Your task to perform on an android device: set an alarm Image 0: 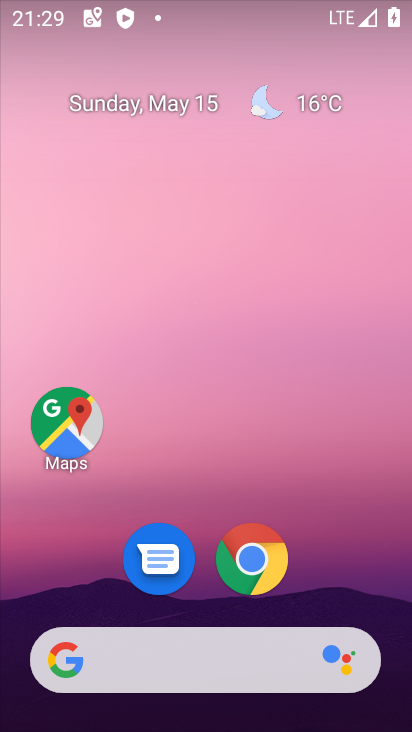
Step 0: drag from (378, 500) to (212, 6)
Your task to perform on an android device: set an alarm Image 1: 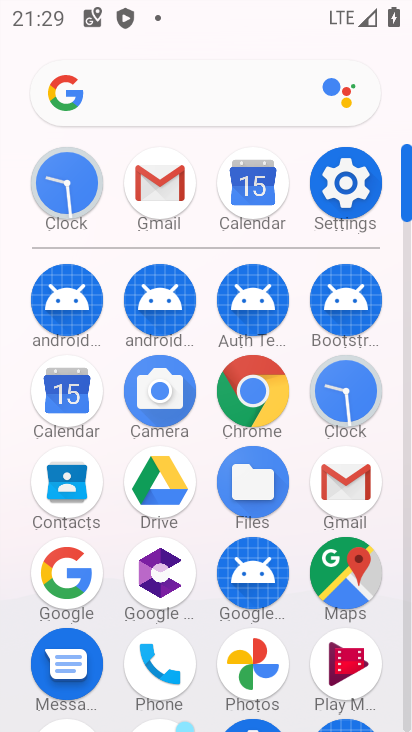
Step 1: click (352, 391)
Your task to perform on an android device: set an alarm Image 2: 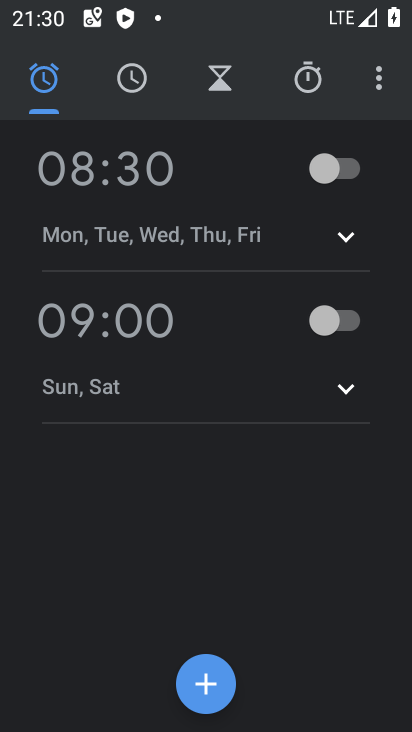
Step 2: click (203, 682)
Your task to perform on an android device: set an alarm Image 3: 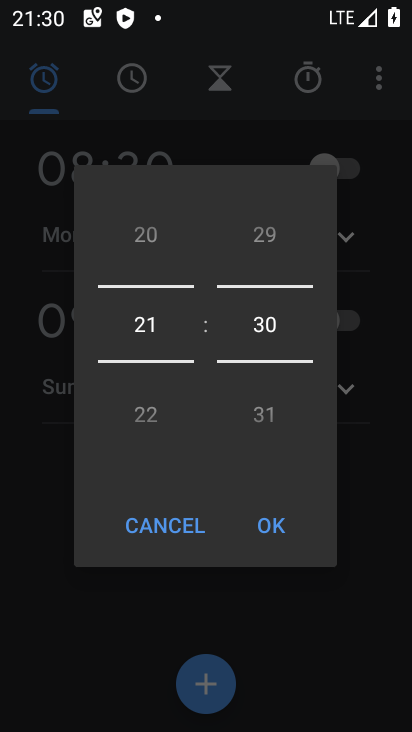
Step 3: click (264, 522)
Your task to perform on an android device: set an alarm Image 4: 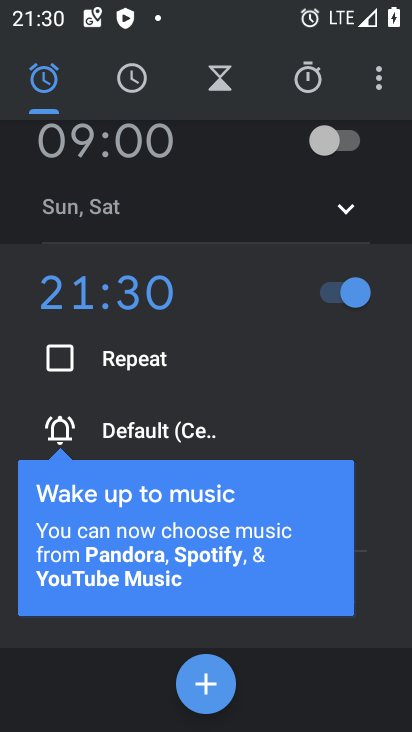
Step 4: task complete